Your task to perform on an android device: Go to CNN.com Image 0: 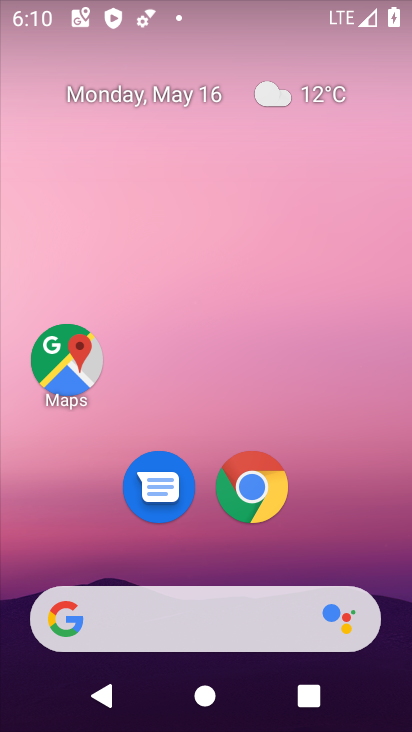
Step 0: click (260, 485)
Your task to perform on an android device: Go to CNN.com Image 1: 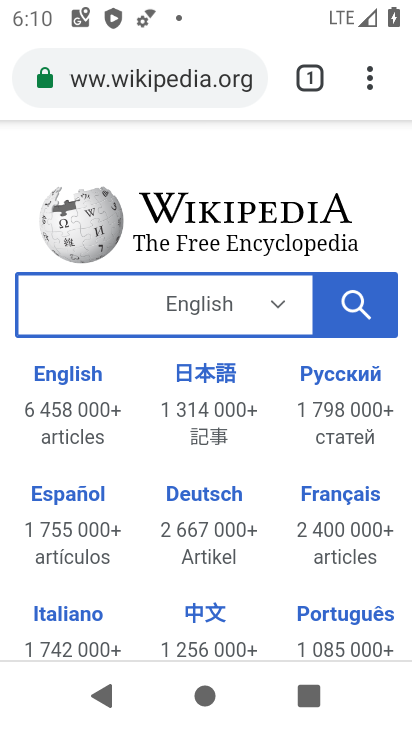
Step 1: click (164, 69)
Your task to perform on an android device: Go to CNN.com Image 2: 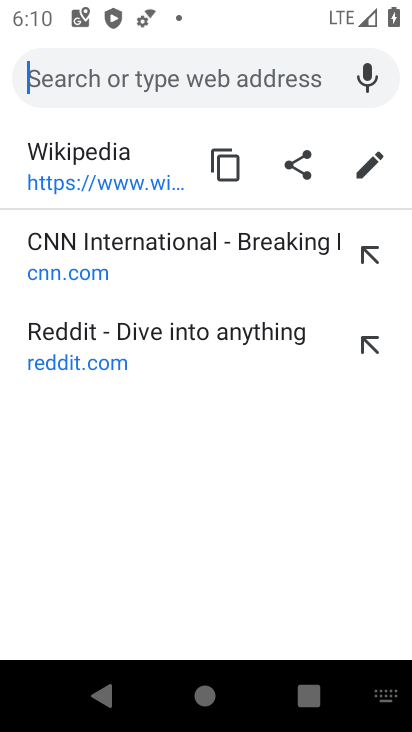
Step 2: click (88, 279)
Your task to perform on an android device: Go to CNN.com Image 3: 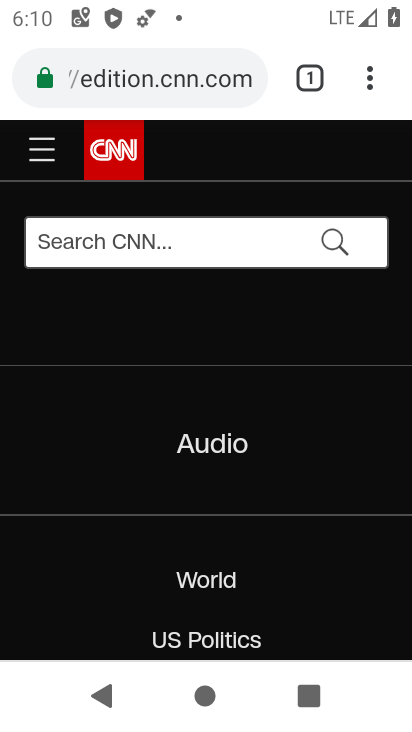
Step 3: task complete